Your task to perform on an android device: refresh tabs in the chrome app Image 0: 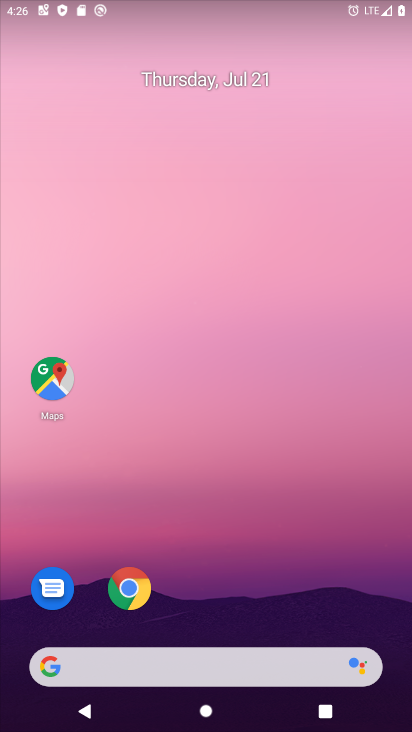
Step 0: drag from (298, 587) to (179, 68)
Your task to perform on an android device: refresh tabs in the chrome app Image 1: 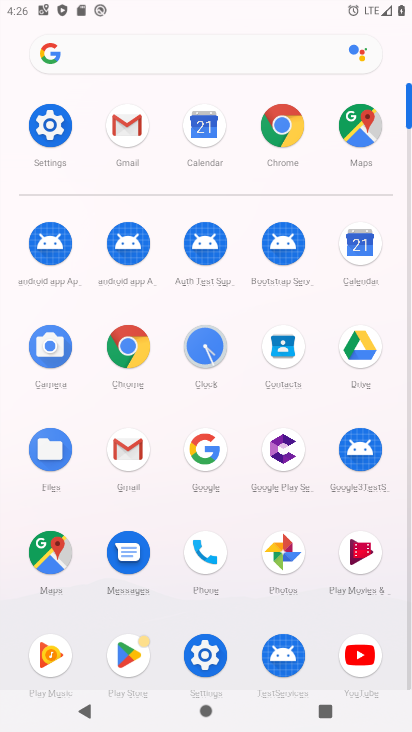
Step 1: click (119, 339)
Your task to perform on an android device: refresh tabs in the chrome app Image 2: 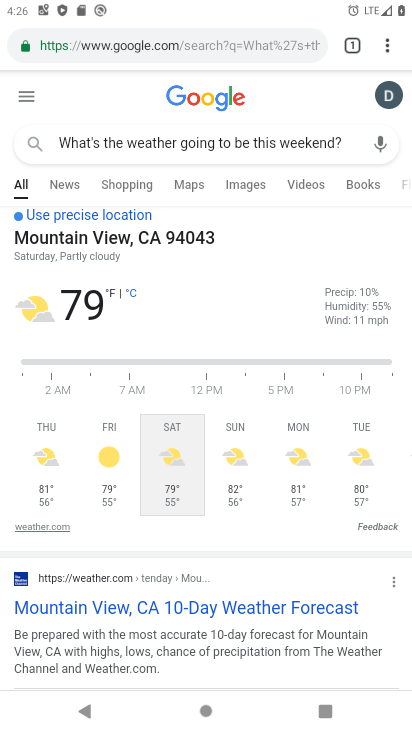
Step 2: click (387, 48)
Your task to perform on an android device: refresh tabs in the chrome app Image 3: 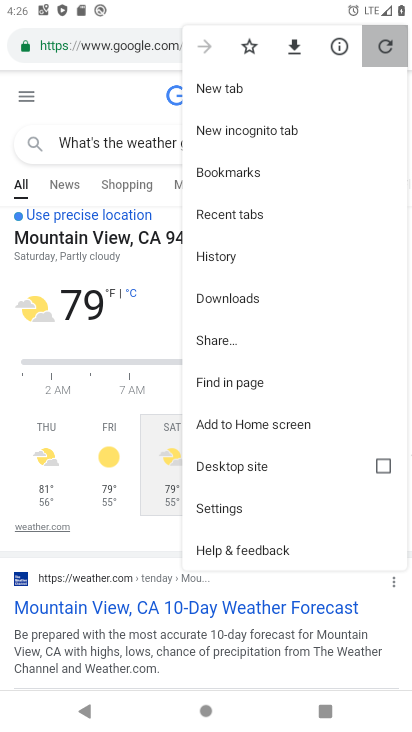
Step 3: click (387, 48)
Your task to perform on an android device: refresh tabs in the chrome app Image 4: 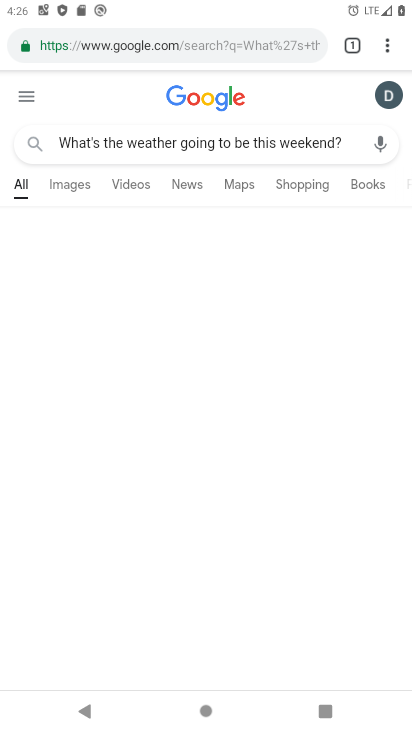
Step 4: task complete